Your task to perform on an android device: open a bookmark in the chrome app Image 0: 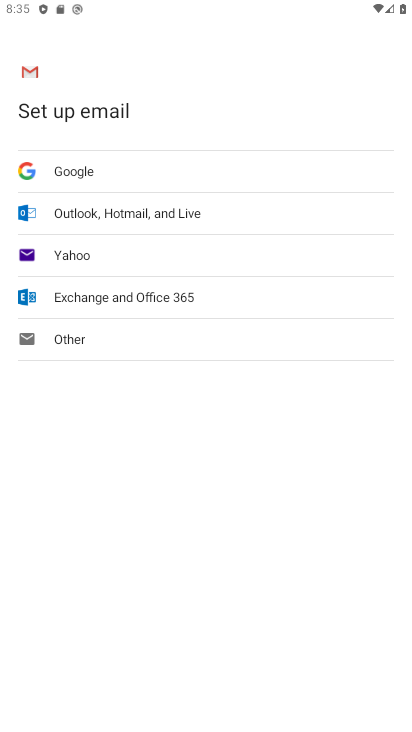
Step 0: press home button
Your task to perform on an android device: open a bookmark in the chrome app Image 1: 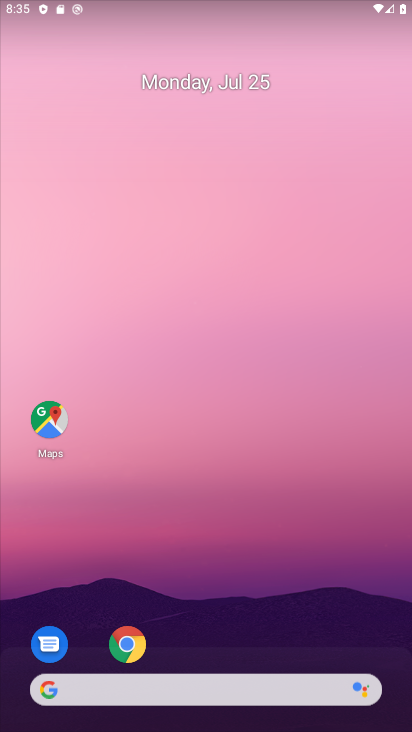
Step 1: drag from (328, 608) to (403, 64)
Your task to perform on an android device: open a bookmark in the chrome app Image 2: 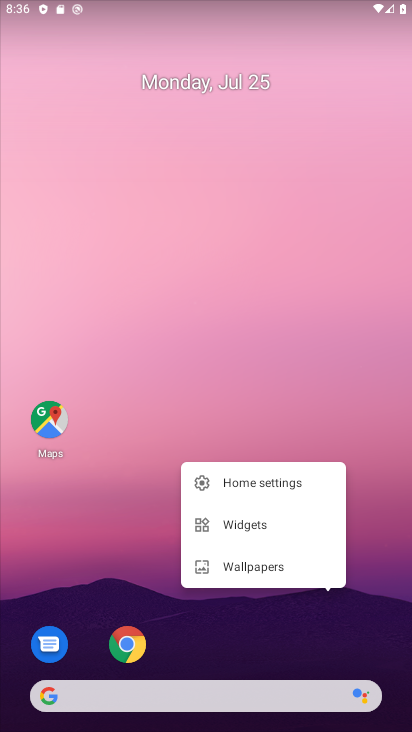
Step 2: click (225, 302)
Your task to perform on an android device: open a bookmark in the chrome app Image 3: 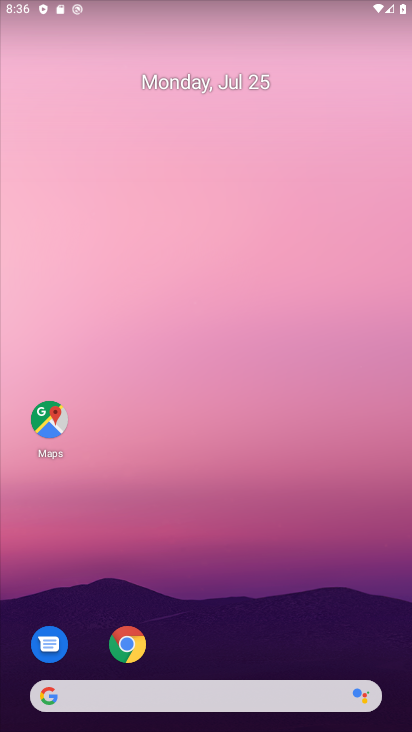
Step 3: click (123, 636)
Your task to perform on an android device: open a bookmark in the chrome app Image 4: 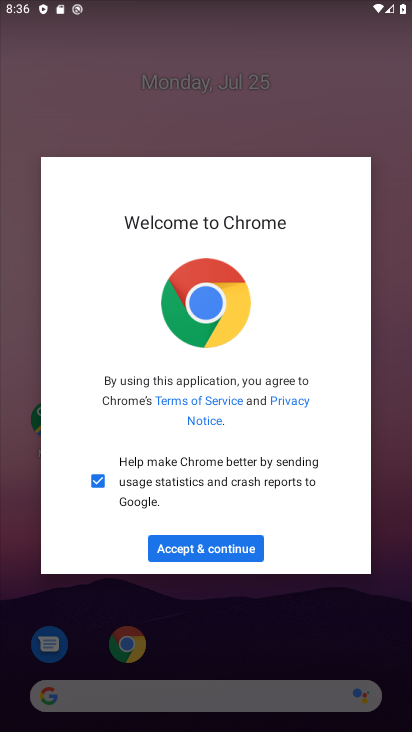
Step 4: click (229, 549)
Your task to perform on an android device: open a bookmark in the chrome app Image 5: 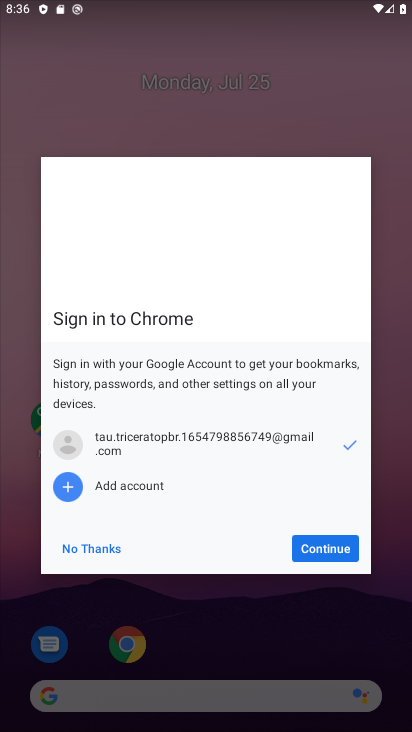
Step 5: click (309, 543)
Your task to perform on an android device: open a bookmark in the chrome app Image 6: 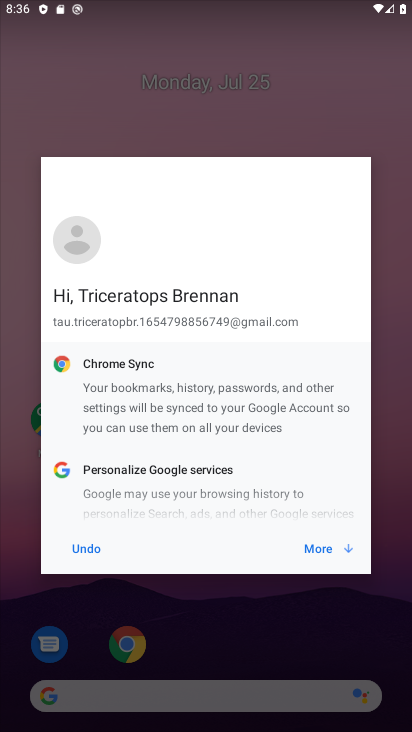
Step 6: click (334, 544)
Your task to perform on an android device: open a bookmark in the chrome app Image 7: 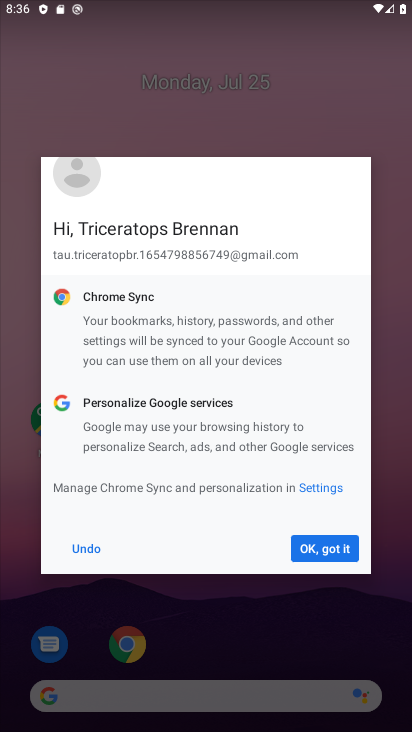
Step 7: click (334, 544)
Your task to perform on an android device: open a bookmark in the chrome app Image 8: 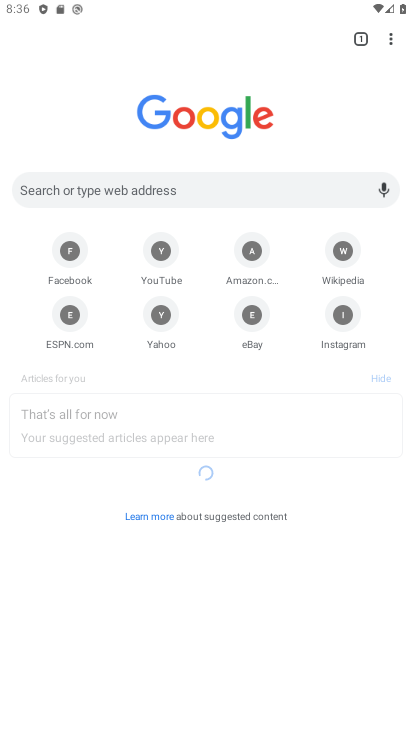
Step 8: task complete